Your task to perform on an android device: turn on priority inbox in the gmail app Image 0: 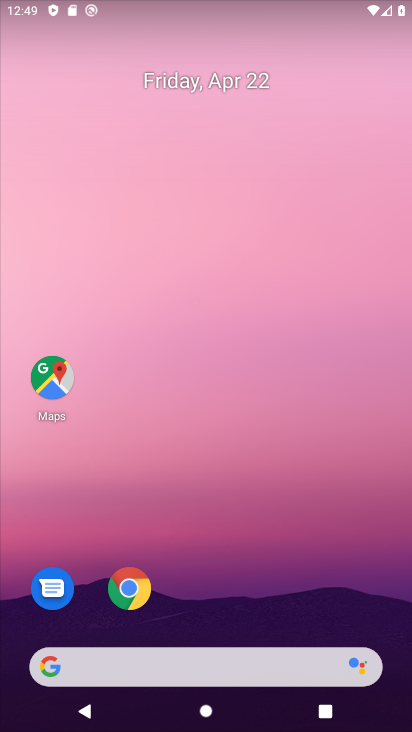
Step 0: drag from (379, 605) to (341, 168)
Your task to perform on an android device: turn on priority inbox in the gmail app Image 1: 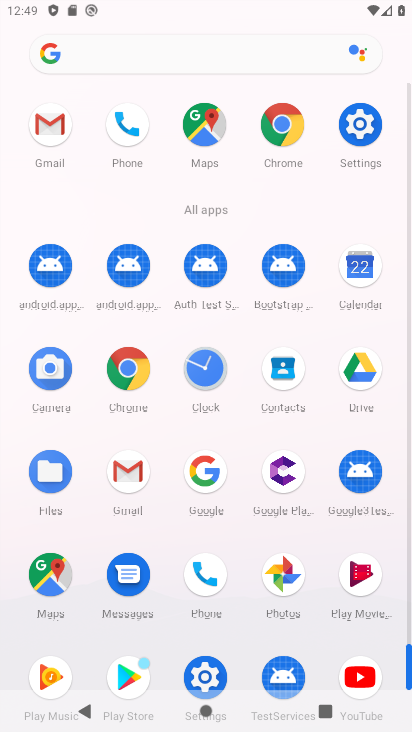
Step 1: click (120, 469)
Your task to perform on an android device: turn on priority inbox in the gmail app Image 2: 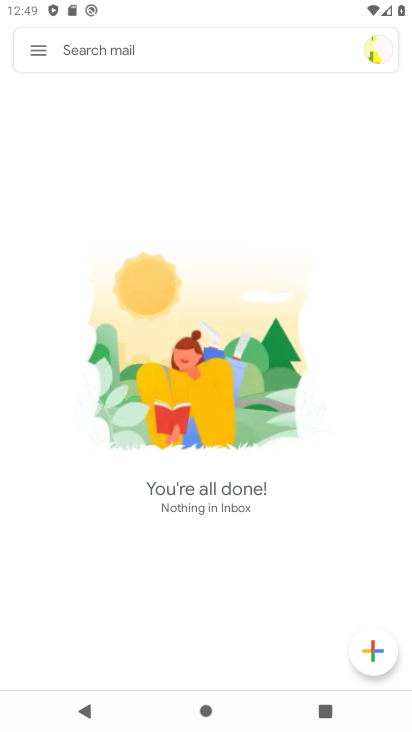
Step 2: click (30, 51)
Your task to perform on an android device: turn on priority inbox in the gmail app Image 3: 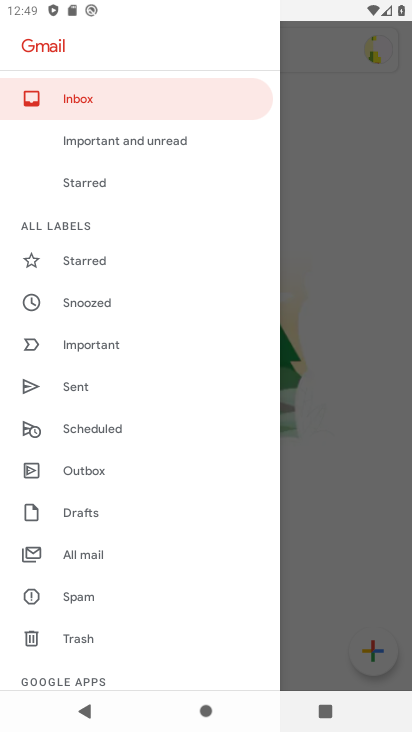
Step 3: drag from (137, 636) to (146, 272)
Your task to perform on an android device: turn on priority inbox in the gmail app Image 4: 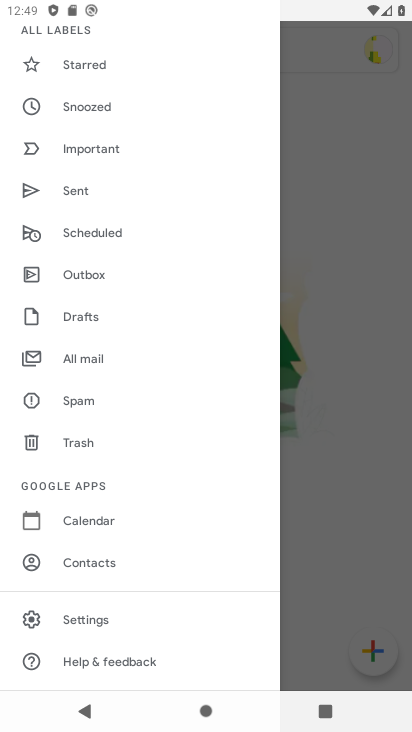
Step 4: click (99, 617)
Your task to perform on an android device: turn on priority inbox in the gmail app Image 5: 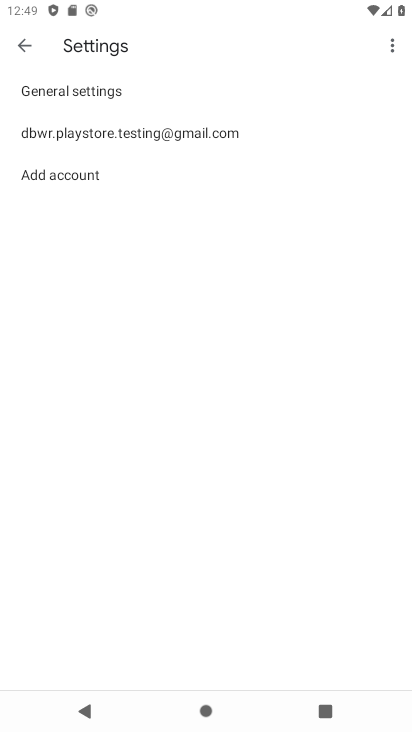
Step 5: click (196, 134)
Your task to perform on an android device: turn on priority inbox in the gmail app Image 6: 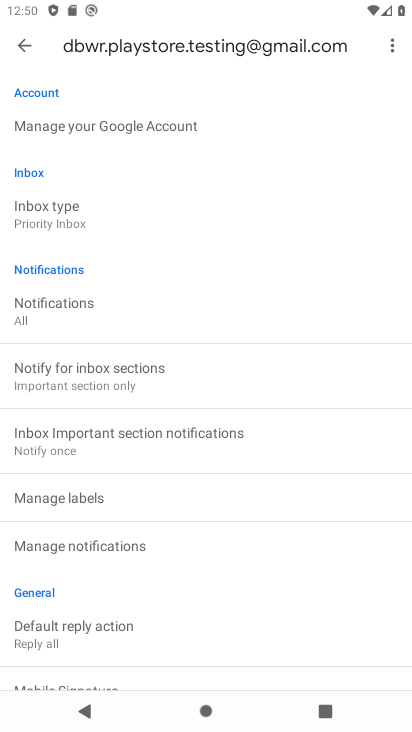
Step 6: click (84, 213)
Your task to perform on an android device: turn on priority inbox in the gmail app Image 7: 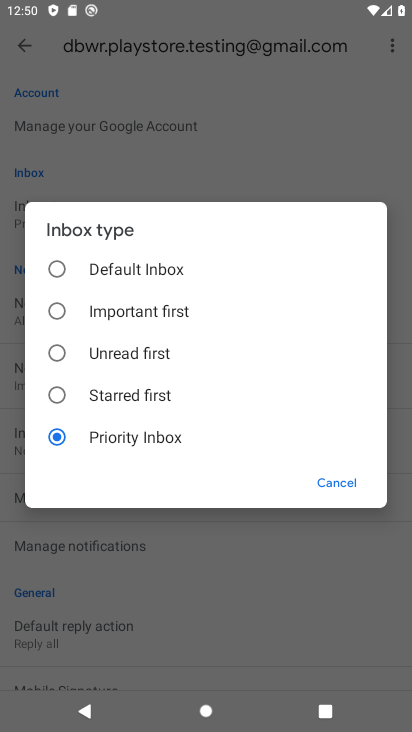
Step 7: task complete